Your task to perform on an android device: move an email to a new category in the gmail app Image 0: 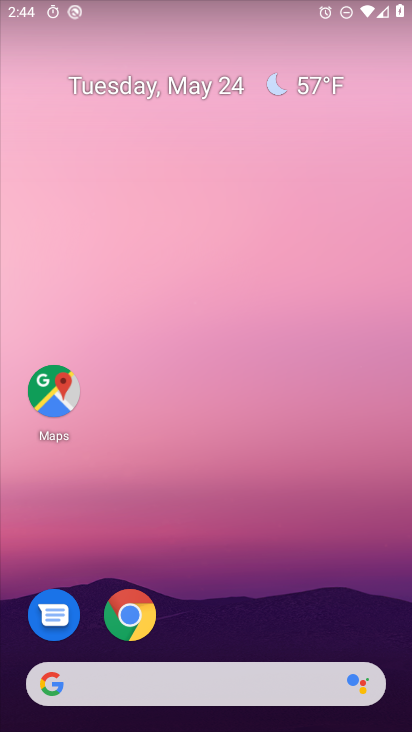
Step 0: drag from (189, 631) to (175, 145)
Your task to perform on an android device: move an email to a new category in the gmail app Image 1: 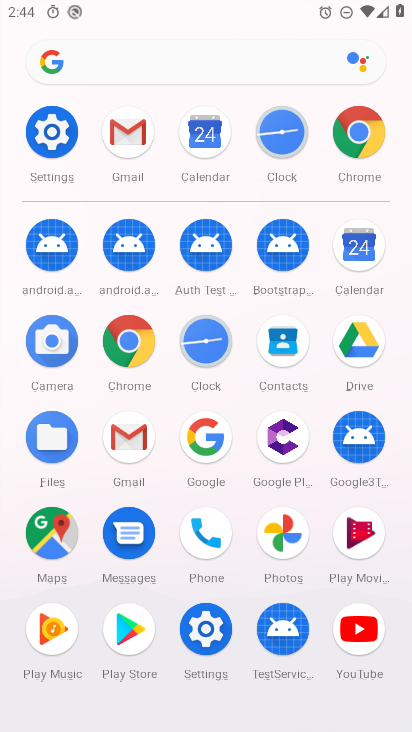
Step 1: click (125, 458)
Your task to perform on an android device: move an email to a new category in the gmail app Image 2: 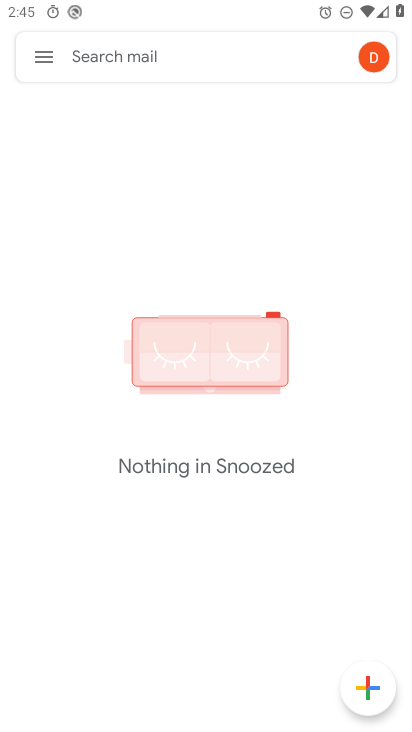
Step 2: click (36, 61)
Your task to perform on an android device: move an email to a new category in the gmail app Image 3: 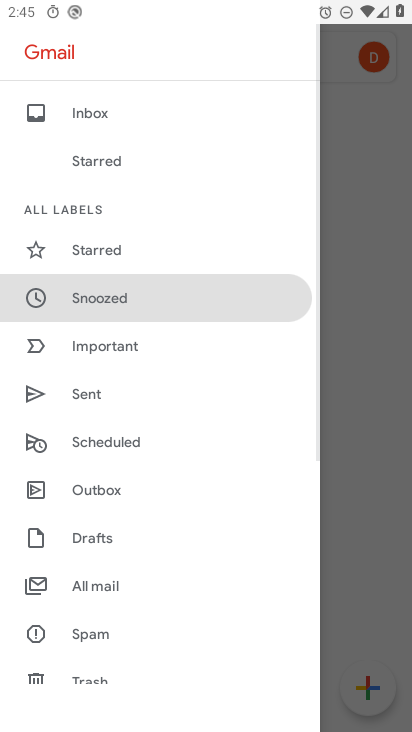
Step 3: click (89, 125)
Your task to perform on an android device: move an email to a new category in the gmail app Image 4: 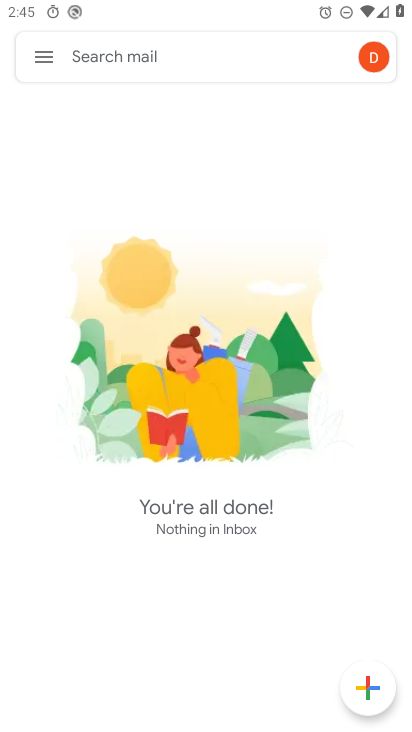
Step 4: task complete